Your task to perform on an android device: Open internet settings Image 0: 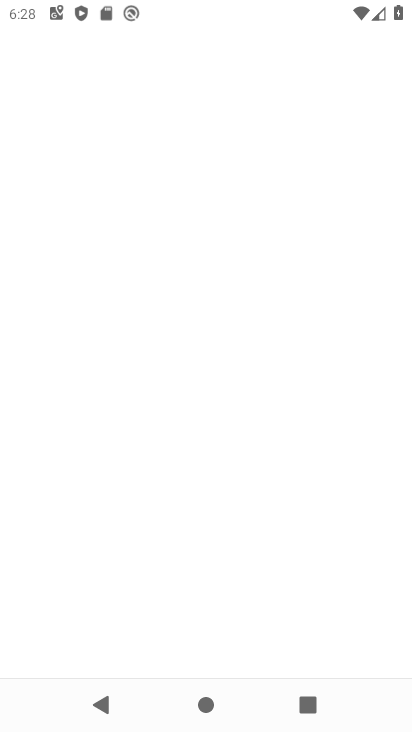
Step 0: drag from (263, 567) to (264, 386)
Your task to perform on an android device: Open internet settings Image 1: 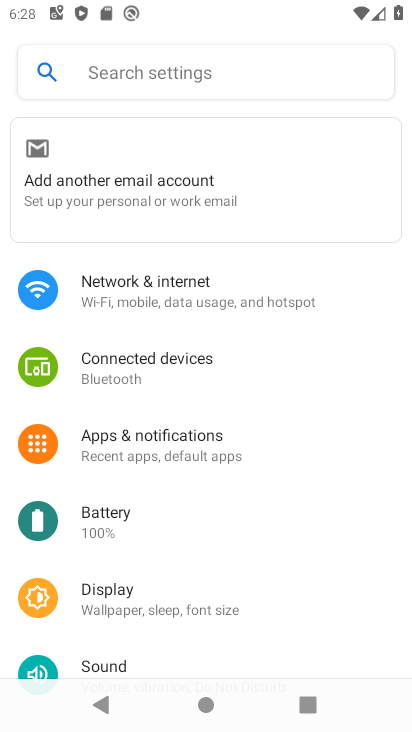
Step 1: press home button
Your task to perform on an android device: Open internet settings Image 2: 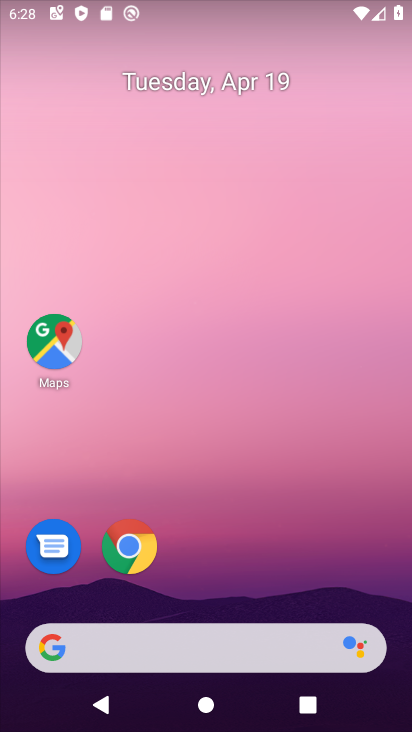
Step 2: drag from (249, 570) to (288, 64)
Your task to perform on an android device: Open internet settings Image 3: 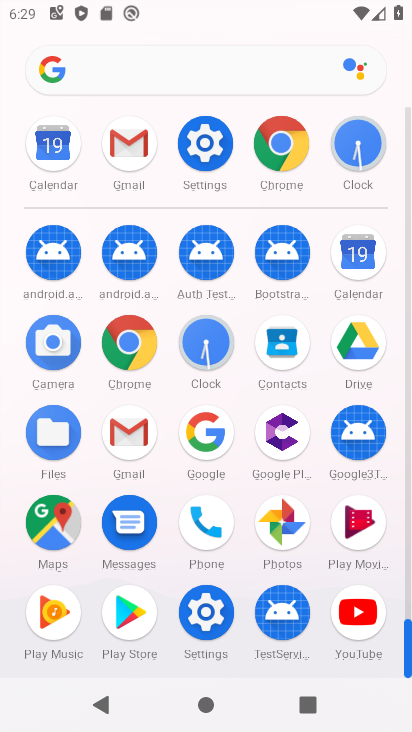
Step 3: click (210, 148)
Your task to perform on an android device: Open internet settings Image 4: 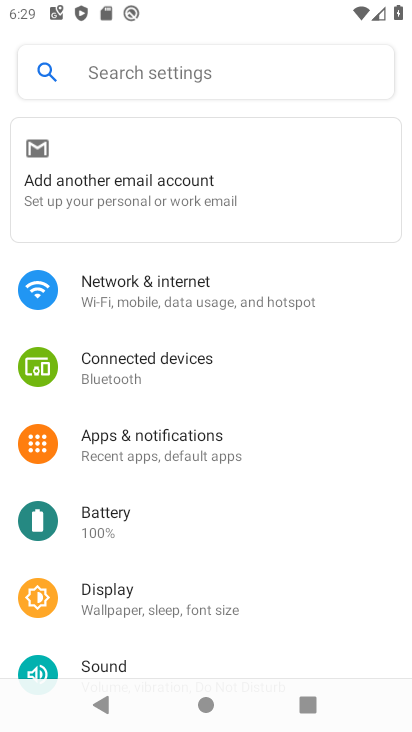
Step 4: click (154, 293)
Your task to perform on an android device: Open internet settings Image 5: 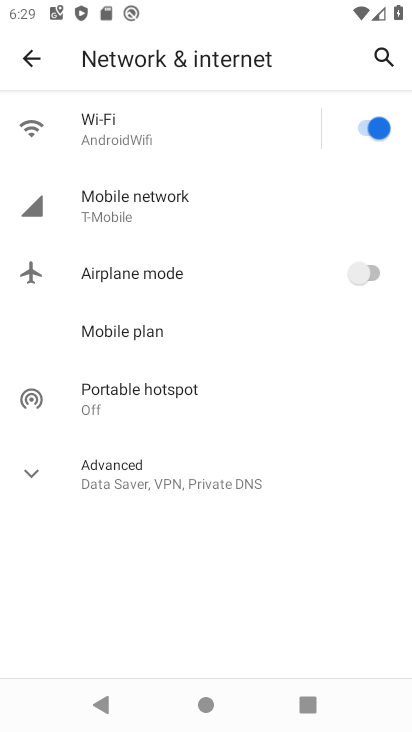
Step 5: task complete